Your task to perform on an android device: When is my next meeting? Image 0: 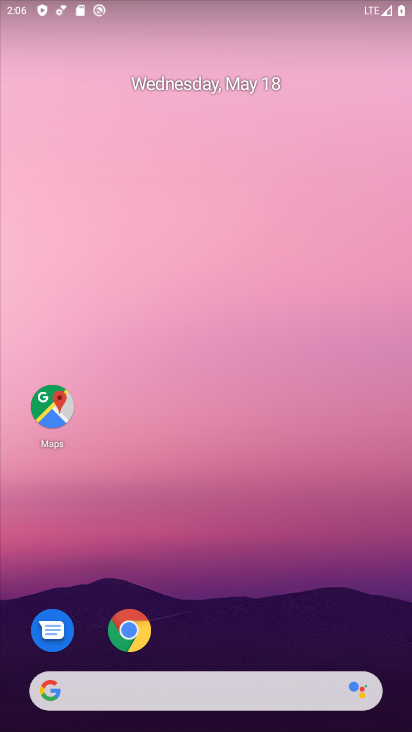
Step 0: drag from (228, 630) to (236, 156)
Your task to perform on an android device: When is my next meeting? Image 1: 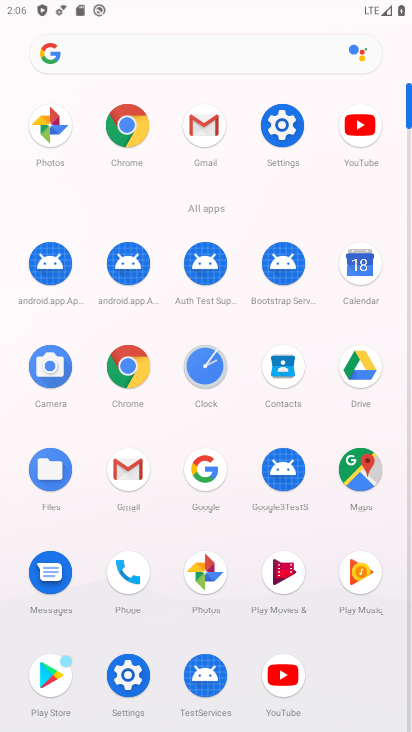
Step 1: click (344, 276)
Your task to perform on an android device: When is my next meeting? Image 2: 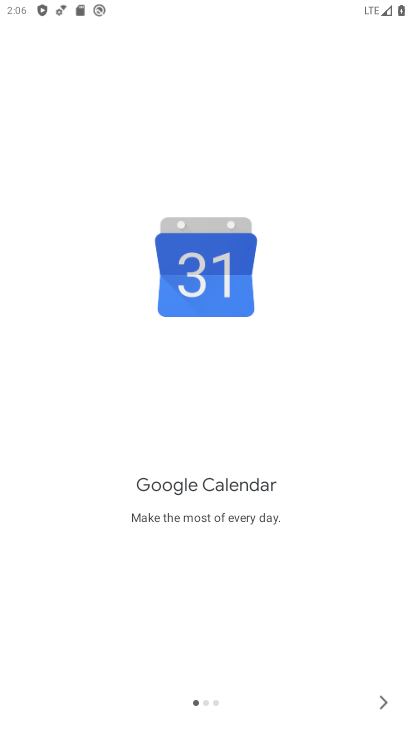
Step 2: click (379, 701)
Your task to perform on an android device: When is my next meeting? Image 3: 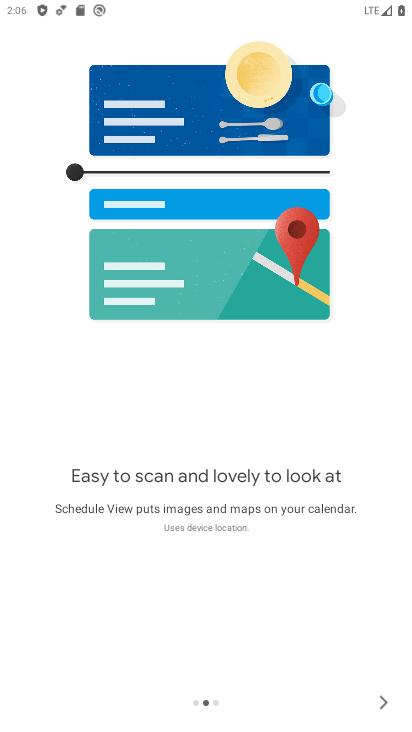
Step 3: click (381, 699)
Your task to perform on an android device: When is my next meeting? Image 4: 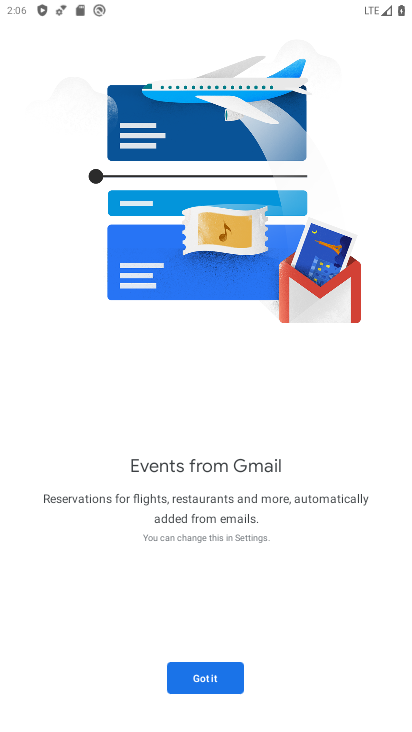
Step 4: click (222, 686)
Your task to perform on an android device: When is my next meeting? Image 5: 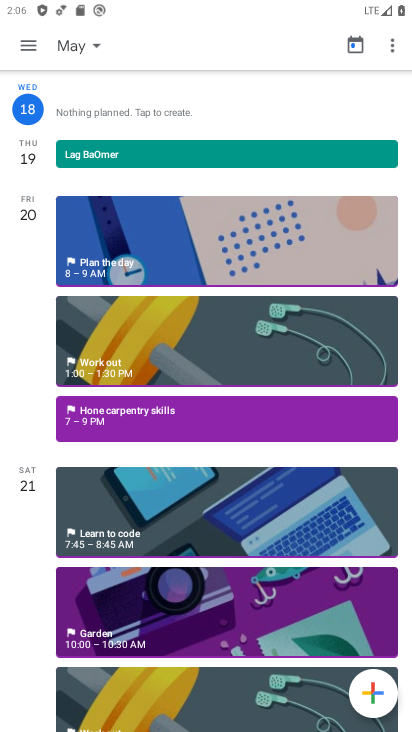
Step 5: click (100, 40)
Your task to perform on an android device: When is my next meeting? Image 6: 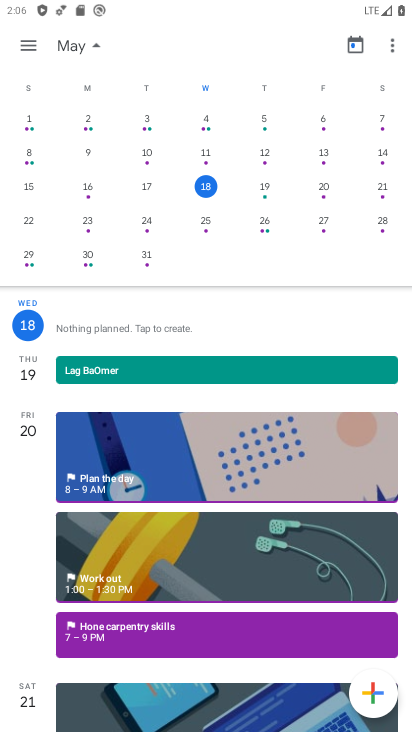
Step 6: click (100, 40)
Your task to perform on an android device: When is my next meeting? Image 7: 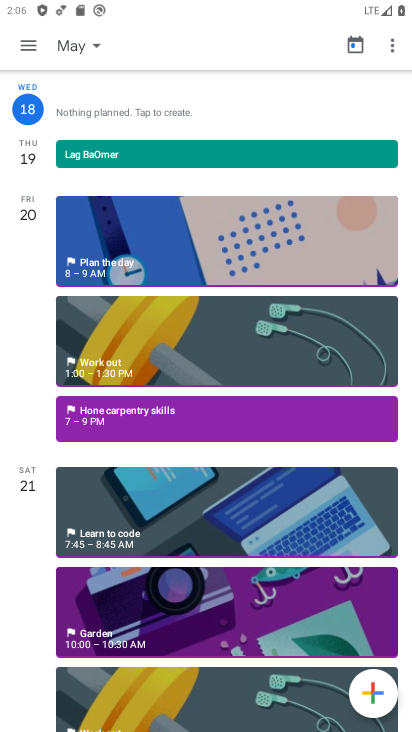
Step 7: task complete